Your task to perform on an android device: delete a single message in the gmail app Image 0: 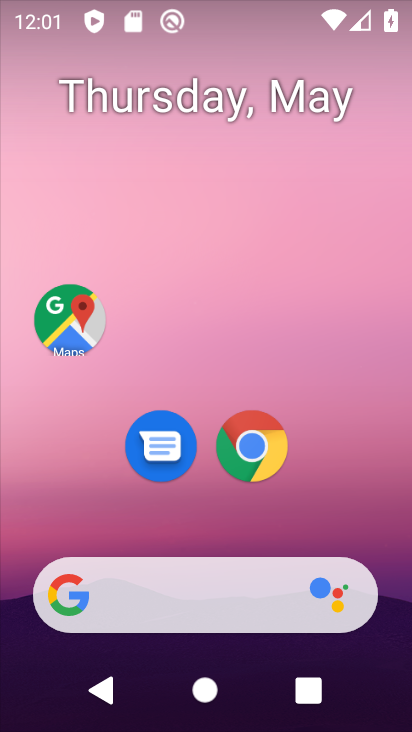
Step 0: drag from (337, 527) to (310, 39)
Your task to perform on an android device: delete a single message in the gmail app Image 1: 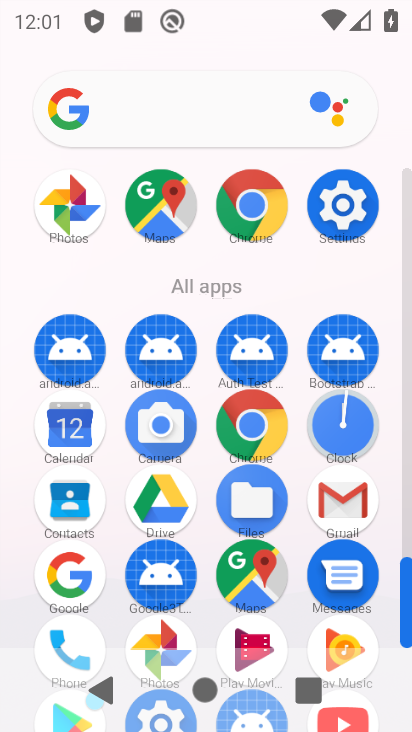
Step 1: click (340, 503)
Your task to perform on an android device: delete a single message in the gmail app Image 2: 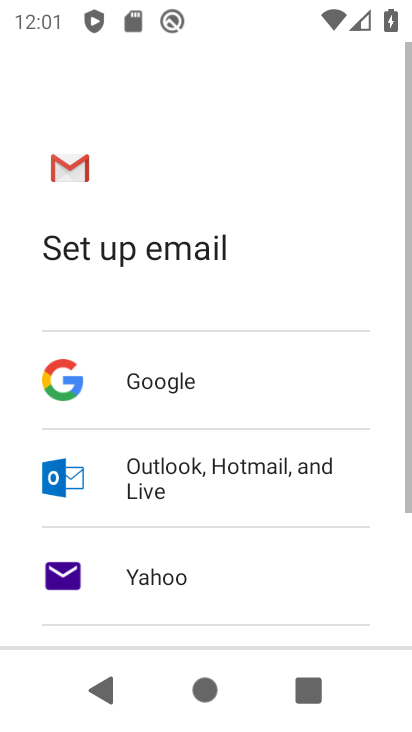
Step 2: press back button
Your task to perform on an android device: delete a single message in the gmail app Image 3: 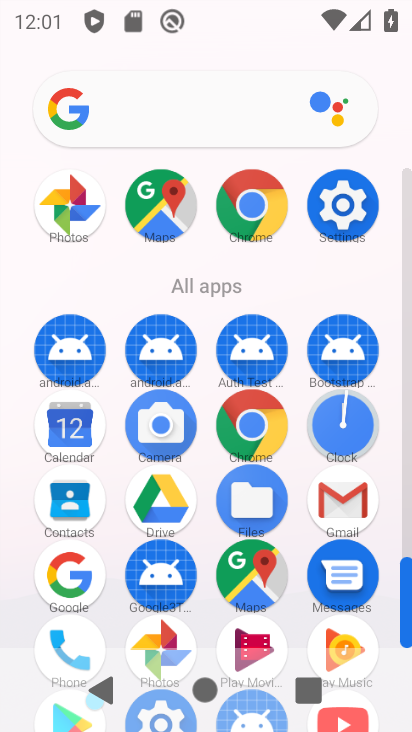
Step 3: click (343, 515)
Your task to perform on an android device: delete a single message in the gmail app Image 4: 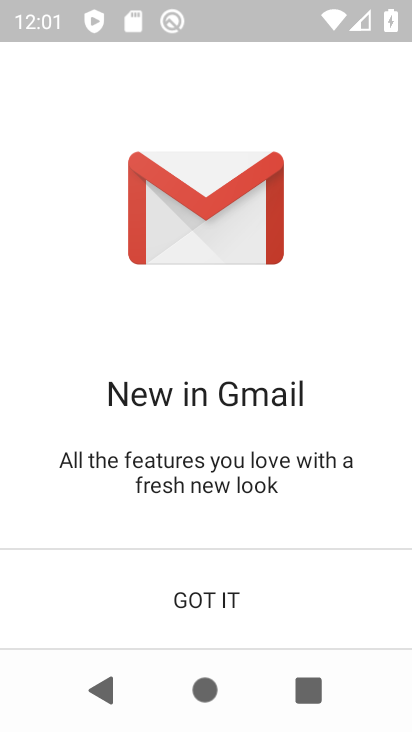
Step 4: click (318, 576)
Your task to perform on an android device: delete a single message in the gmail app Image 5: 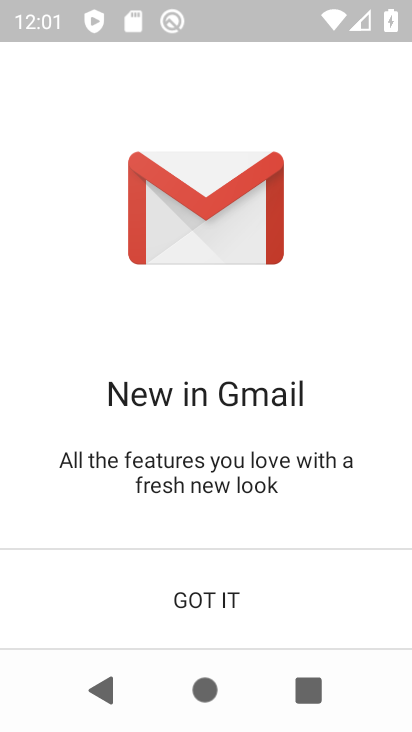
Step 5: click (318, 576)
Your task to perform on an android device: delete a single message in the gmail app Image 6: 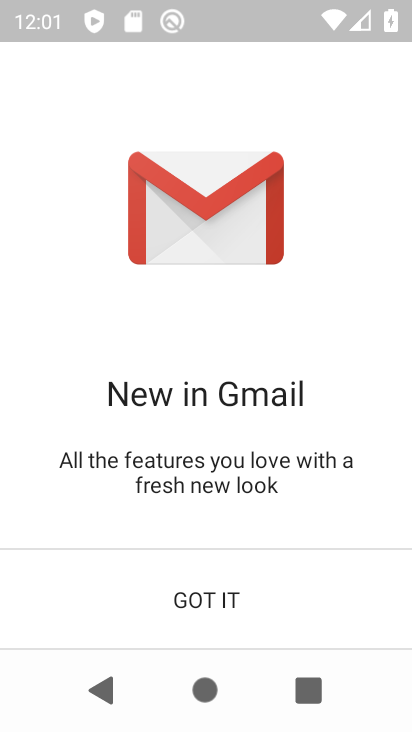
Step 6: click (401, 587)
Your task to perform on an android device: delete a single message in the gmail app Image 7: 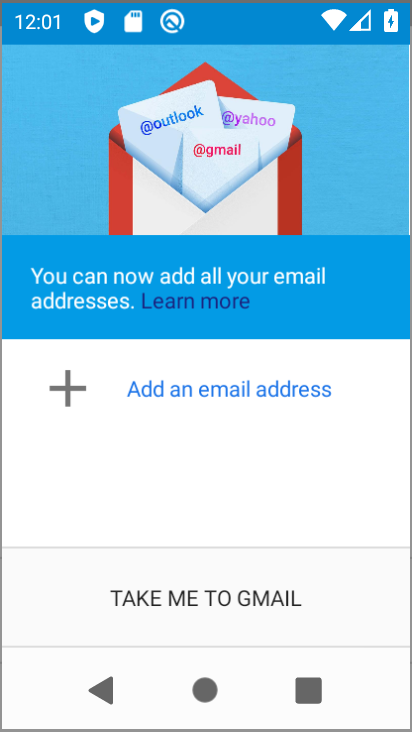
Step 7: click (389, 594)
Your task to perform on an android device: delete a single message in the gmail app Image 8: 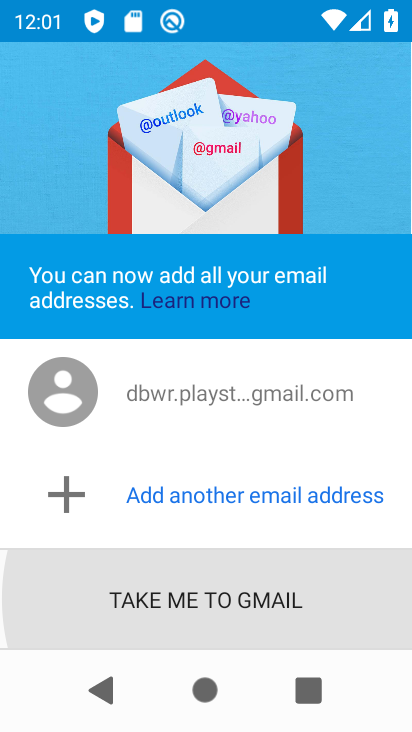
Step 8: click (389, 594)
Your task to perform on an android device: delete a single message in the gmail app Image 9: 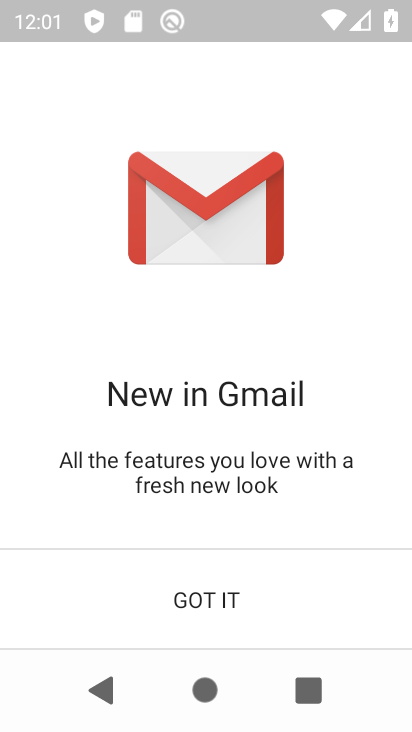
Step 9: click (389, 594)
Your task to perform on an android device: delete a single message in the gmail app Image 10: 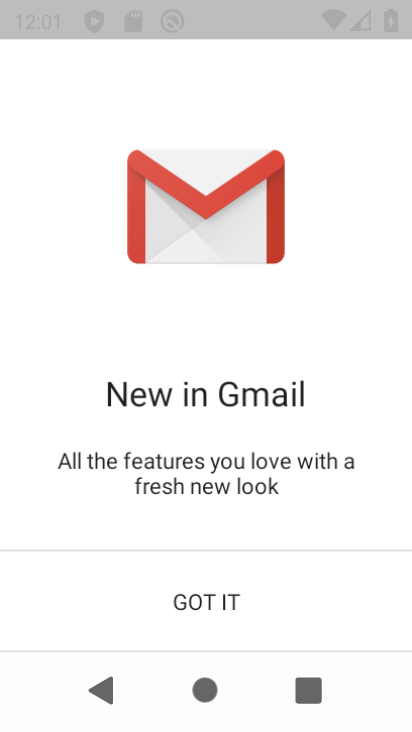
Step 10: click (386, 596)
Your task to perform on an android device: delete a single message in the gmail app Image 11: 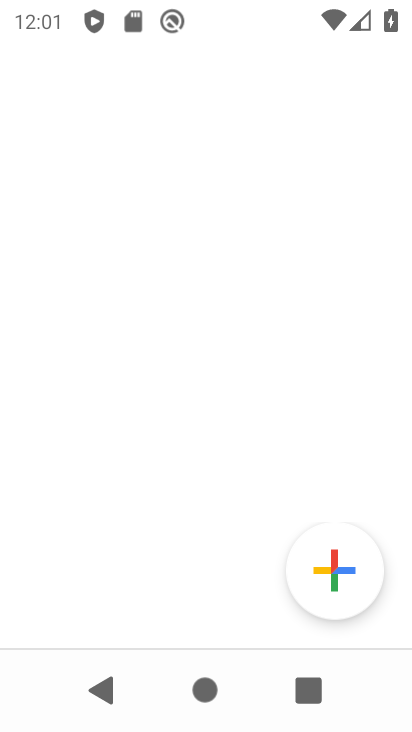
Step 11: click (365, 600)
Your task to perform on an android device: delete a single message in the gmail app Image 12: 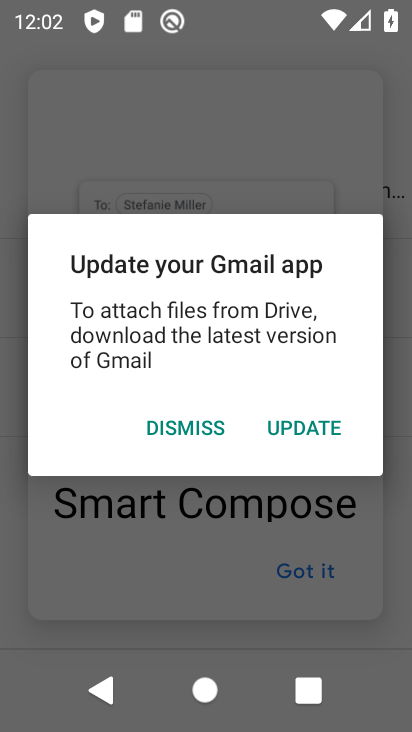
Step 12: click (215, 421)
Your task to perform on an android device: delete a single message in the gmail app Image 13: 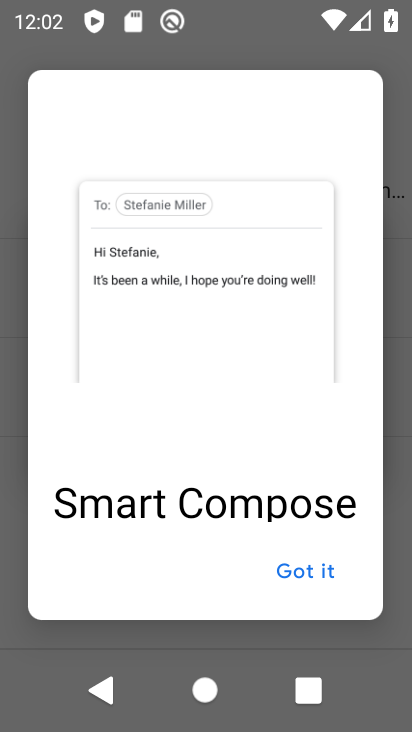
Step 13: click (316, 564)
Your task to perform on an android device: delete a single message in the gmail app Image 14: 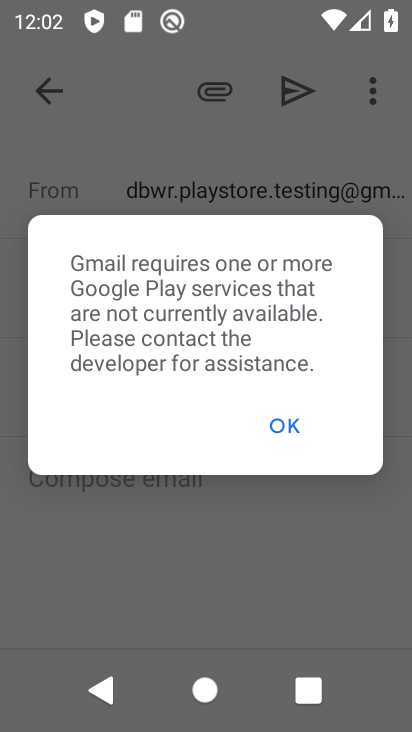
Step 14: click (286, 443)
Your task to perform on an android device: delete a single message in the gmail app Image 15: 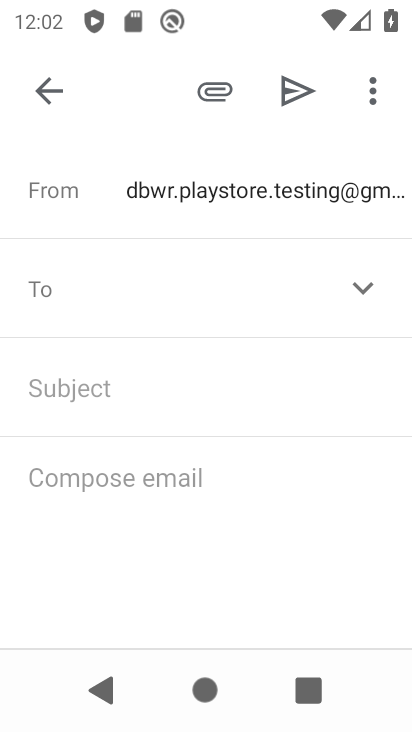
Step 15: click (46, 92)
Your task to perform on an android device: delete a single message in the gmail app Image 16: 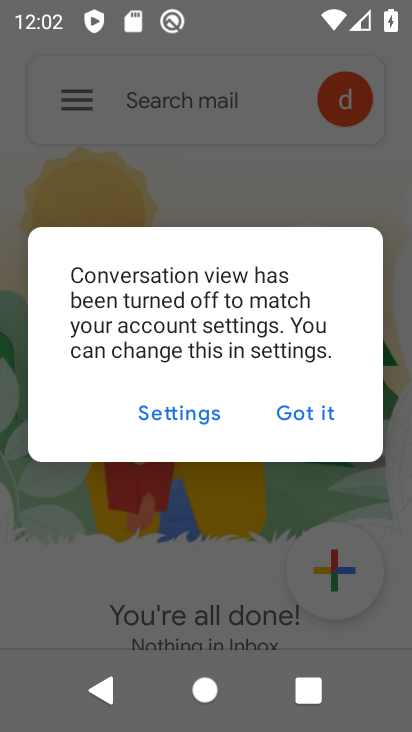
Step 16: click (293, 425)
Your task to perform on an android device: delete a single message in the gmail app Image 17: 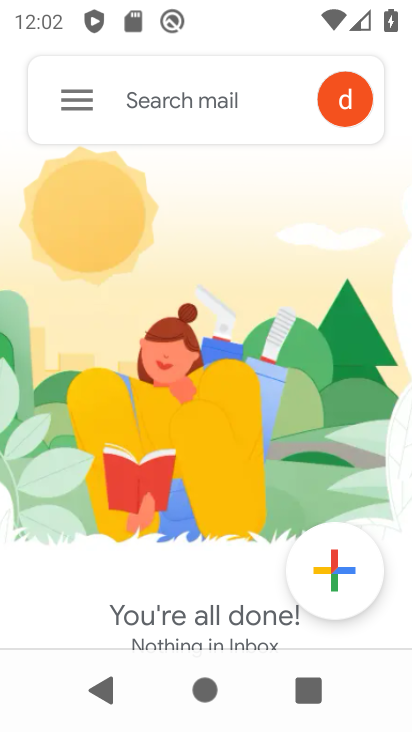
Step 17: task complete